Your task to perform on an android device: set the stopwatch Image 0: 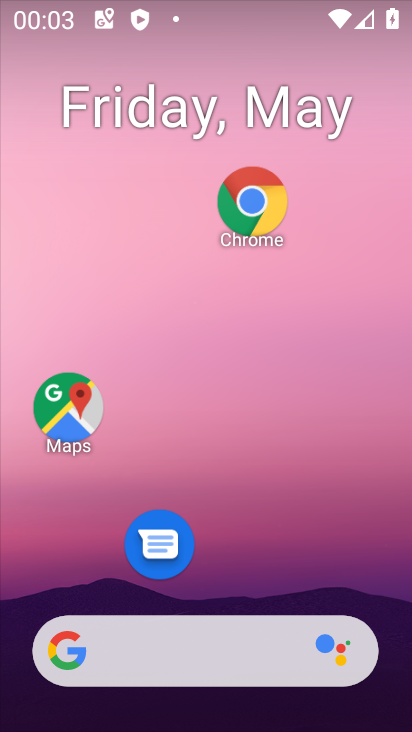
Step 0: drag from (226, 585) to (225, 75)
Your task to perform on an android device: set the stopwatch Image 1: 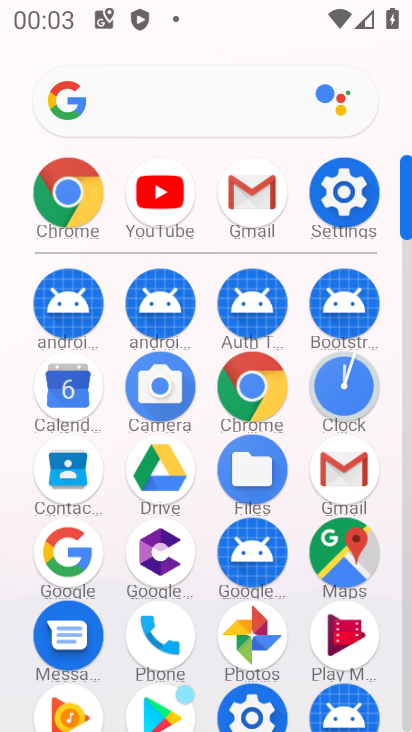
Step 1: click (346, 377)
Your task to perform on an android device: set the stopwatch Image 2: 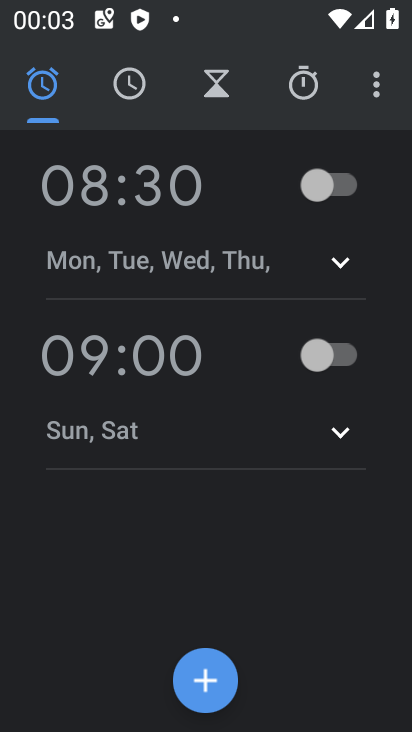
Step 2: click (305, 86)
Your task to perform on an android device: set the stopwatch Image 3: 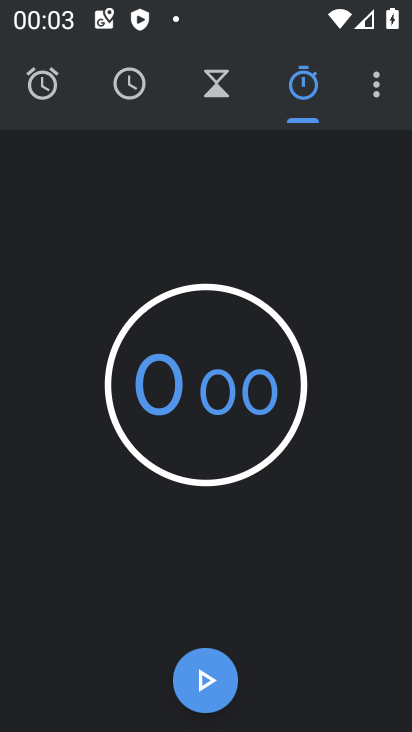
Step 3: click (204, 673)
Your task to perform on an android device: set the stopwatch Image 4: 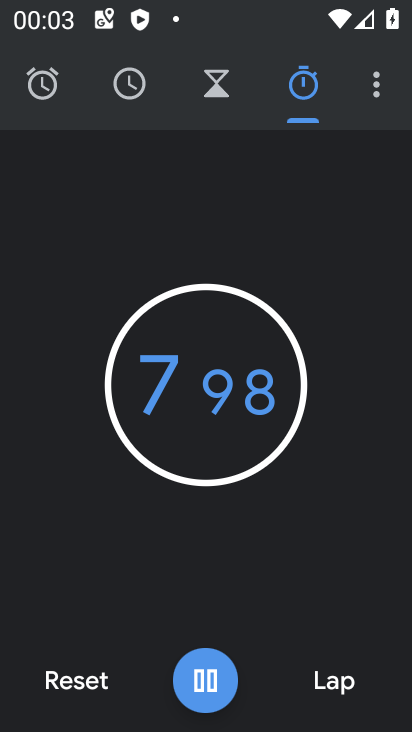
Step 4: click (79, 681)
Your task to perform on an android device: set the stopwatch Image 5: 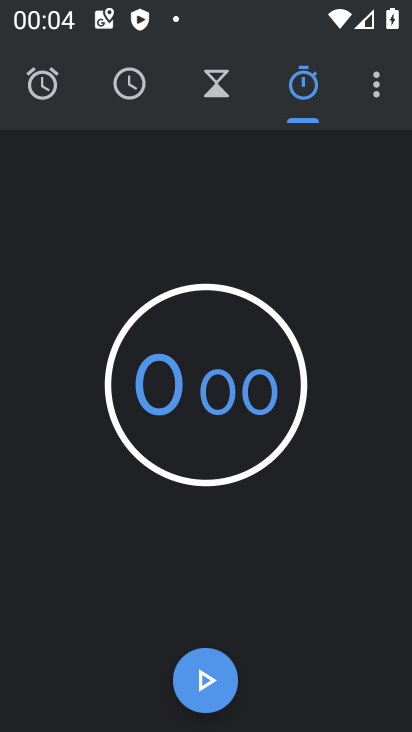
Step 5: click (206, 681)
Your task to perform on an android device: set the stopwatch Image 6: 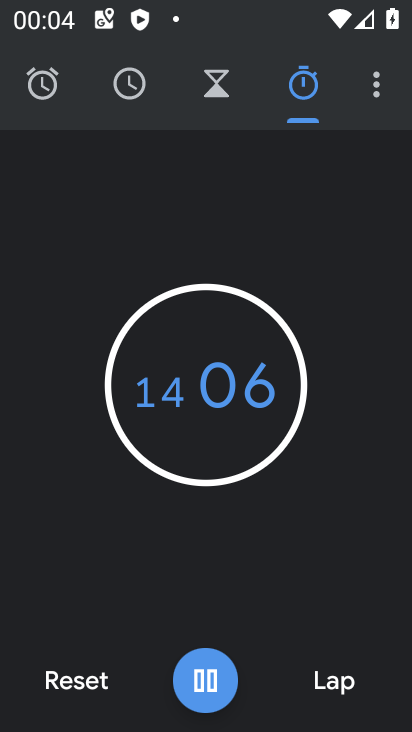
Step 6: task complete